Your task to perform on an android device: toggle location history Image 0: 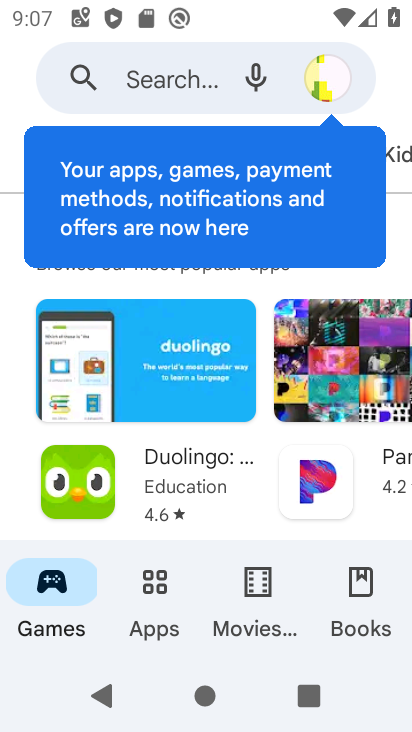
Step 0: press home button
Your task to perform on an android device: toggle location history Image 1: 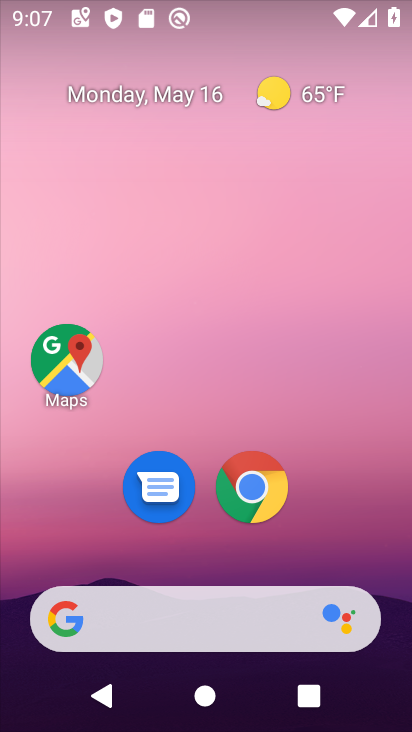
Step 1: drag from (372, 540) to (378, 115)
Your task to perform on an android device: toggle location history Image 2: 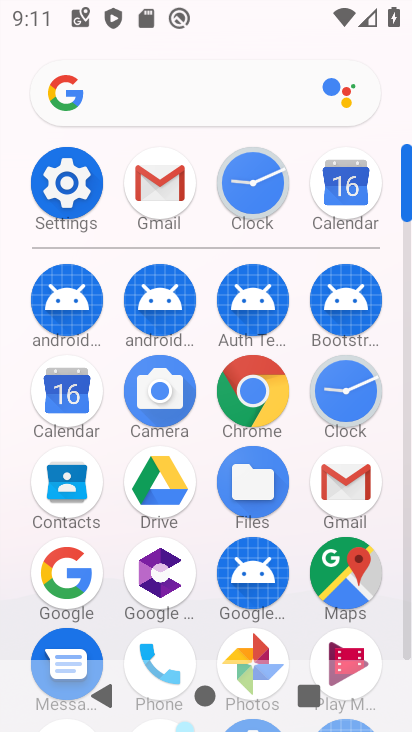
Step 2: click (83, 209)
Your task to perform on an android device: toggle location history Image 3: 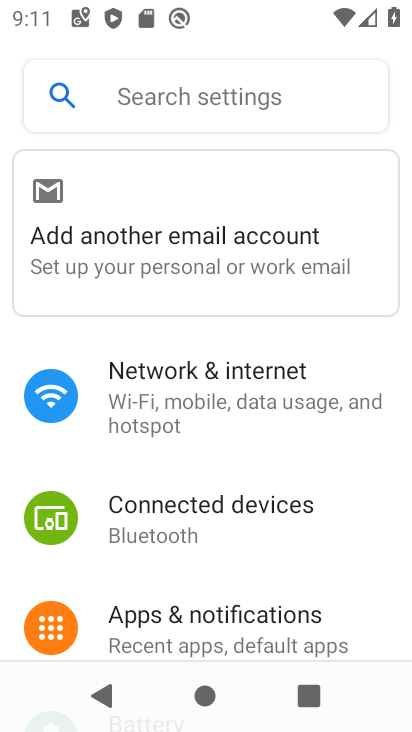
Step 3: drag from (337, 569) to (369, 362)
Your task to perform on an android device: toggle location history Image 4: 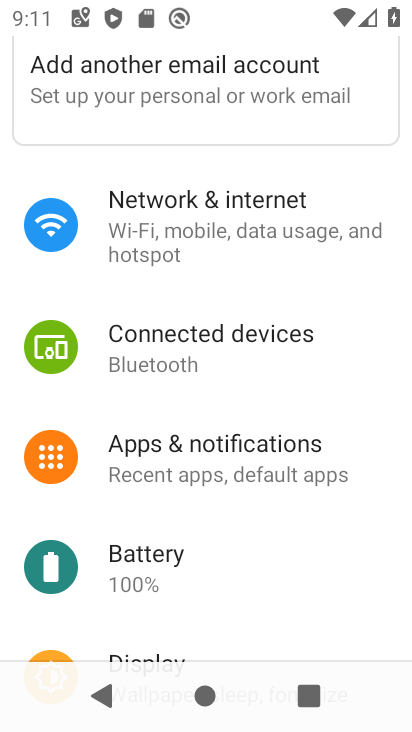
Step 4: drag from (345, 559) to (349, 346)
Your task to perform on an android device: toggle location history Image 5: 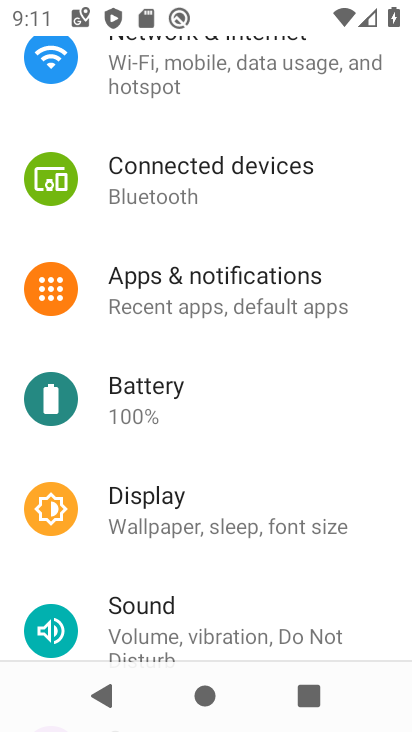
Step 5: drag from (351, 572) to (360, 380)
Your task to perform on an android device: toggle location history Image 6: 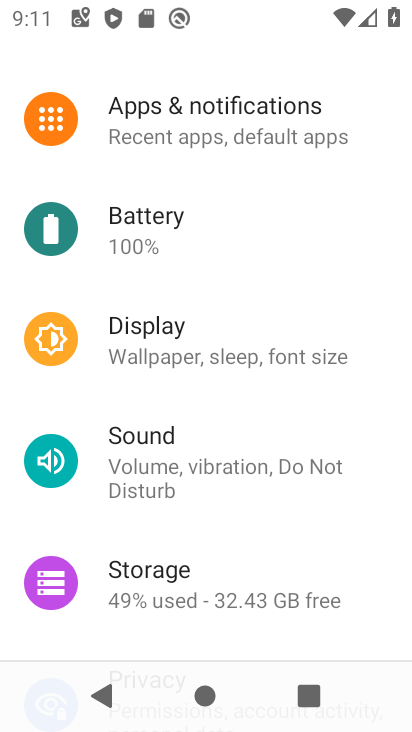
Step 6: drag from (376, 556) to (365, 344)
Your task to perform on an android device: toggle location history Image 7: 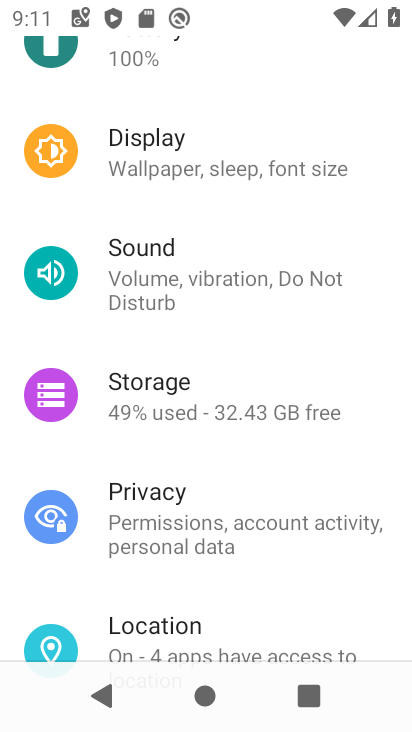
Step 7: drag from (358, 595) to (357, 381)
Your task to perform on an android device: toggle location history Image 8: 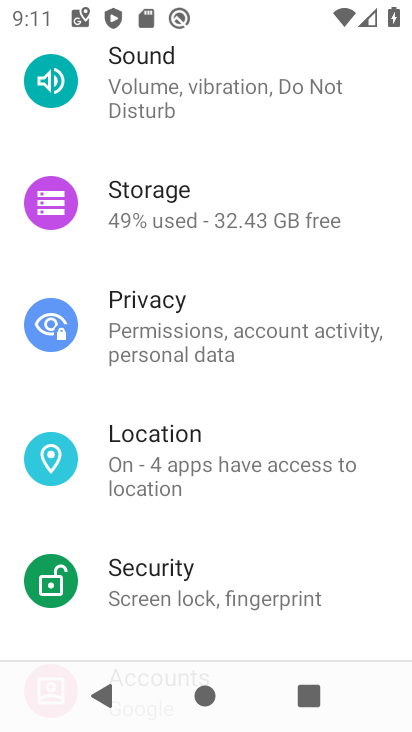
Step 8: click (286, 479)
Your task to perform on an android device: toggle location history Image 9: 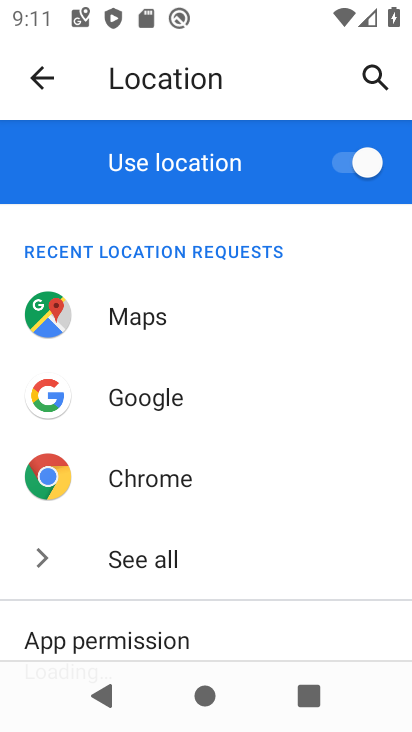
Step 9: drag from (289, 568) to (288, 410)
Your task to perform on an android device: toggle location history Image 10: 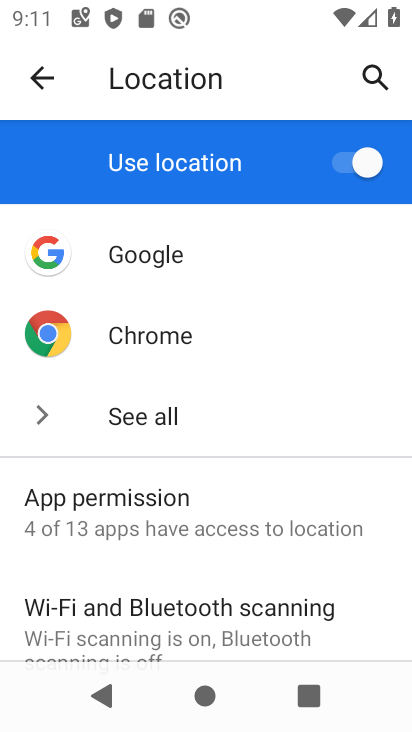
Step 10: drag from (300, 579) to (307, 387)
Your task to perform on an android device: toggle location history Image 11: 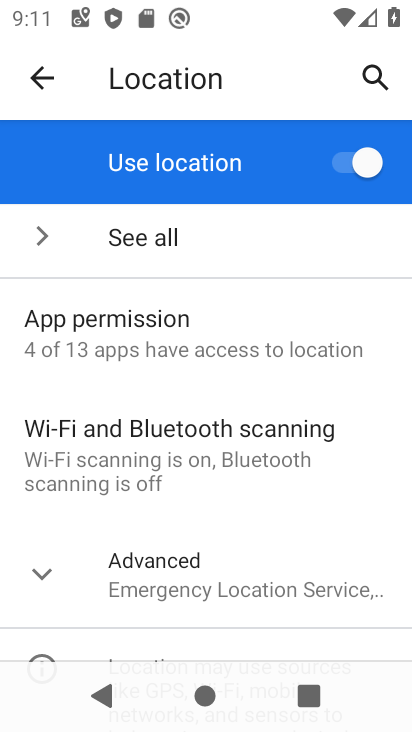
Step 11: drag from (313, 539) to (303, 351)
Your task to perform on an android device: toggle location history Image 12: 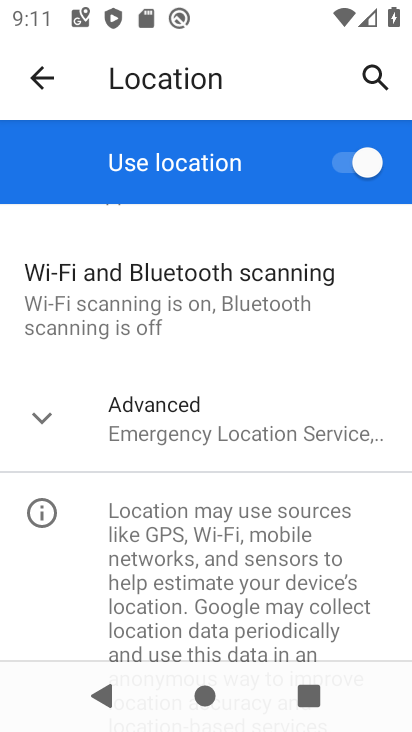
Step 12: drag from (313, 566) to (313, 370)
Your task to perform on an android device: toggle location history Image 13: 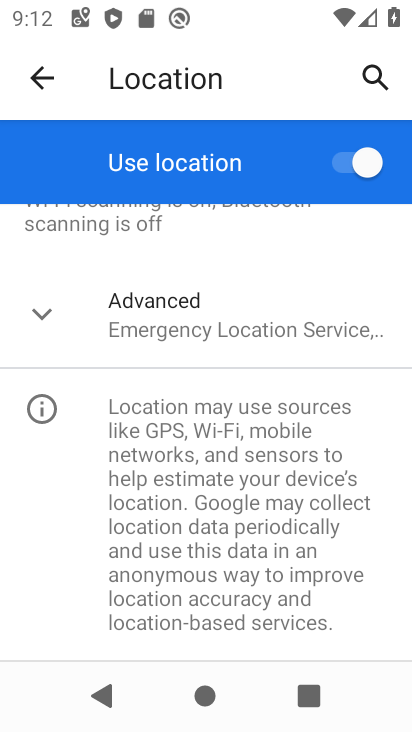
Step 13: drag from (330, 550) to (327, 409)
Your task to perform on an android device: toggle location history Image 14: 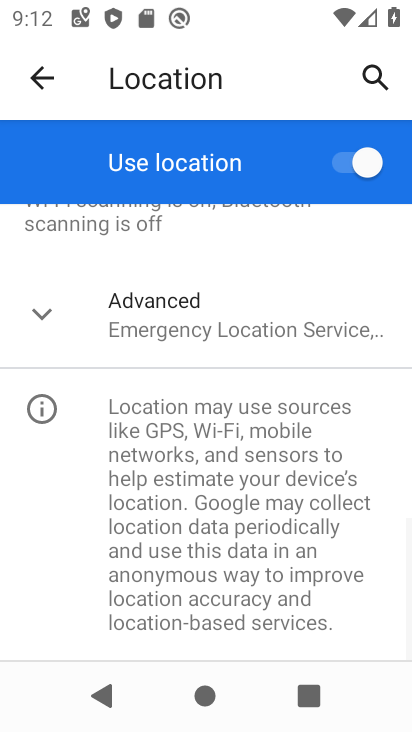
Step 14: click (274, 320)
Your task to perform on an android device: toggle location history Image 15: 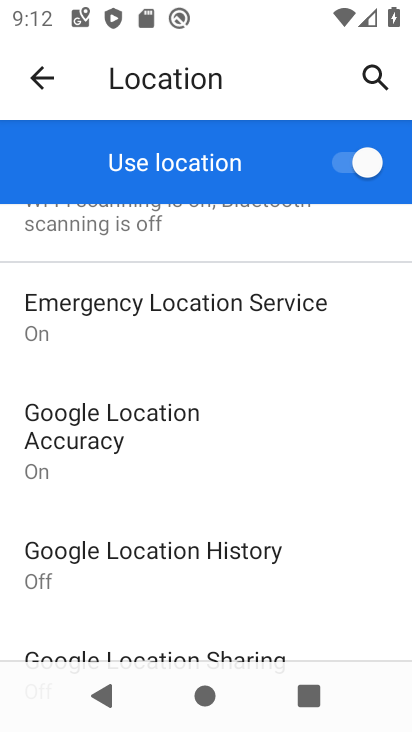
Step 15: drag from (290, 591) to (303, 419)
Your task to perform on an android device: toggle location history Image 16: 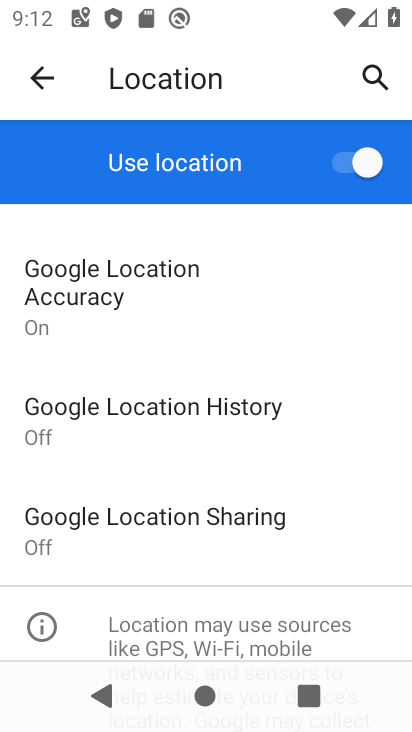
Step 16: click (167, 419)
Your task to perform on an android device: toggle location history Image 17: 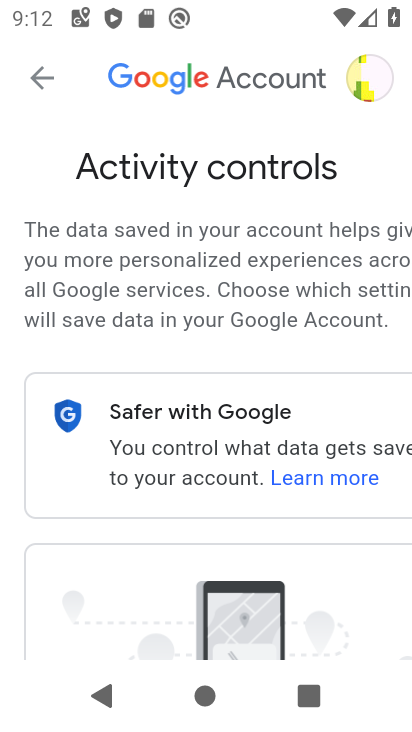
Step 17: drag from (311, 613) to (309, 458)
Your task to perform on an android device: toggle location history Image 18: 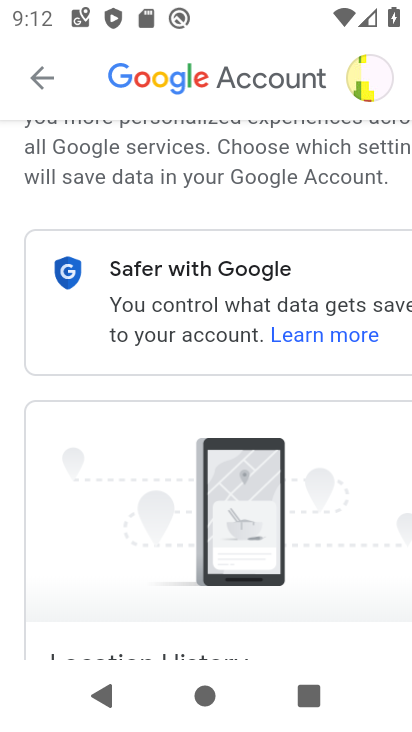
Step 18: drag from (281, 604) to (295, 451)
Your task to perform on an android device: toggle location history Image 19: 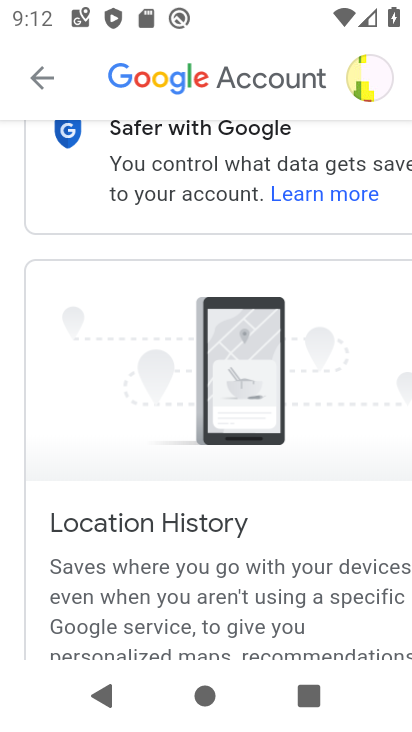
Step 19: drag from (280, 587) to (273, 417)
Your task to perform on an android device: toggle location history Image 20: 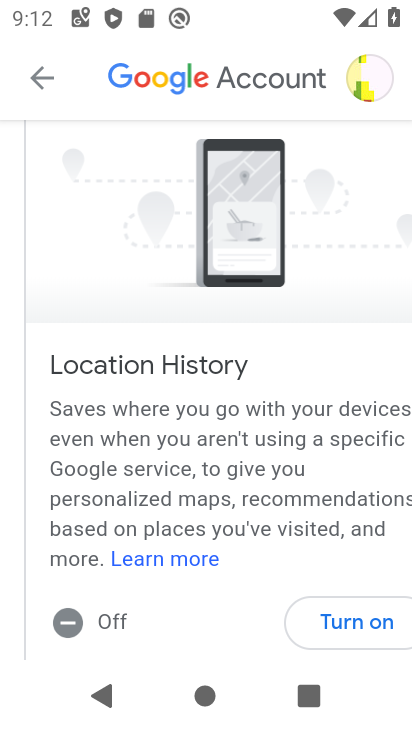
Step 20: drag from (248, 581) to (244, 459)
Your task to perform on an android device: toggle location history Image 21: 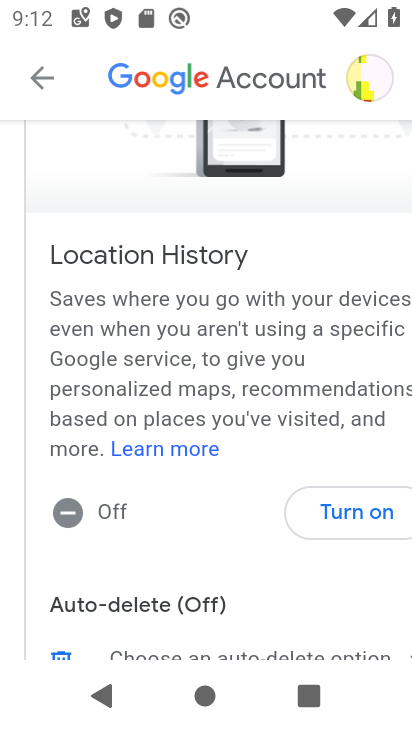
Step 21: click (349, 516)
Your task to perform on an android device: toggle location history Image 22: 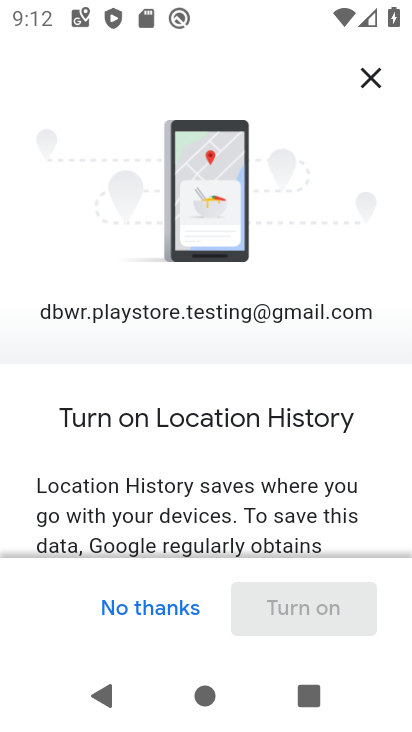
Step 22: drag from (238, 509) to (257, 307)
Your task to perform on an android device: toggle location history Image 23: 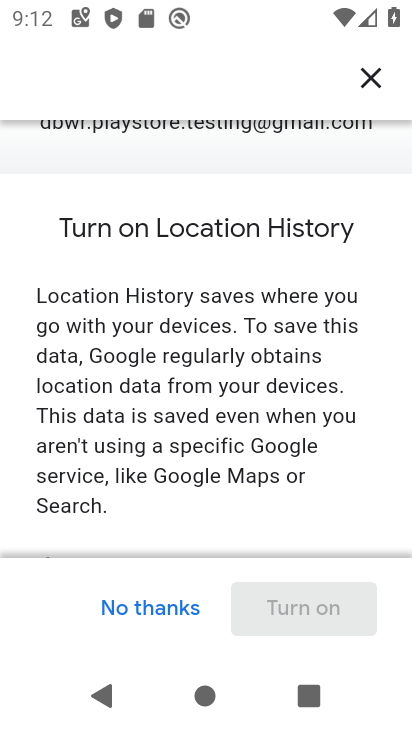
Step 23: drag from (232, 474) to (249, 248)
Your task to perform on an android device: toggle location history Image 24: 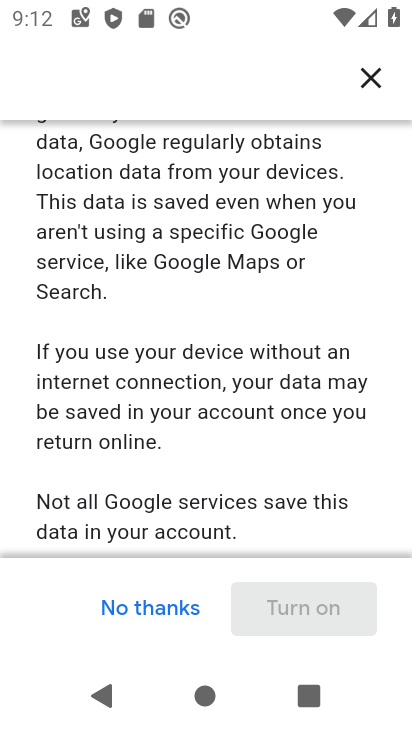
Step 24: drag from (234, 462) to (232, 298)
Your task to perform on an android device: toggle location history Image 25: 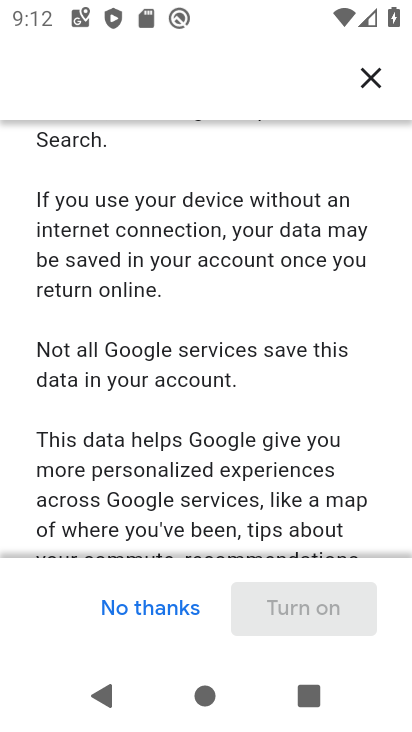
Step 25: drag from (223, 512) to (222, 362)
Your task to perform on an android device: toggle location history Image 26: 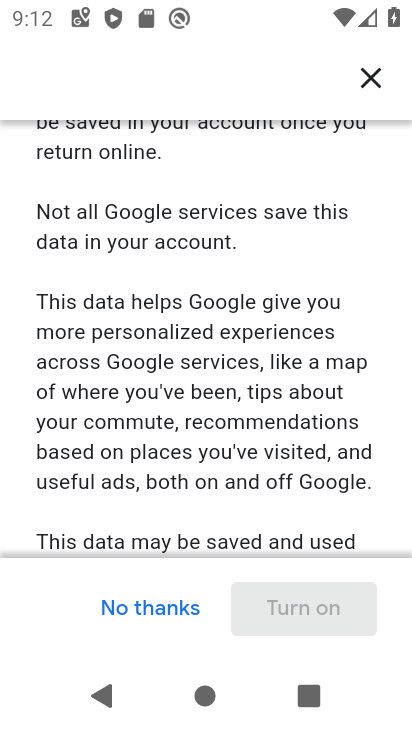
Step 26: drag from (221, 507) to (241, 373)
Your task to perform on an android device: toggle location history Image 27: 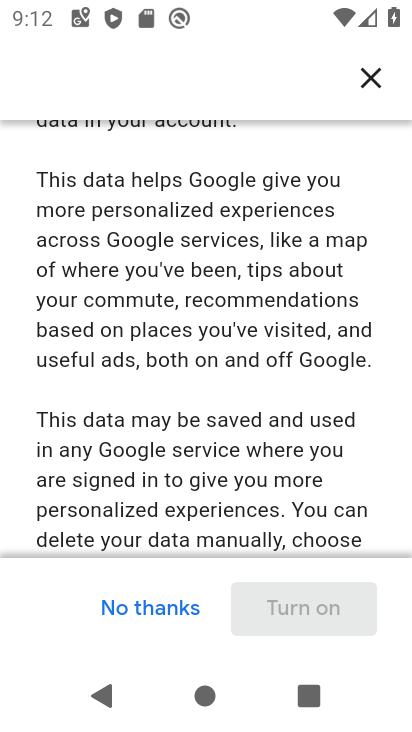
Step 27: drag from (229, 496) to (228, 414)
Your task to perform on an android device: toggle location history Image 28: 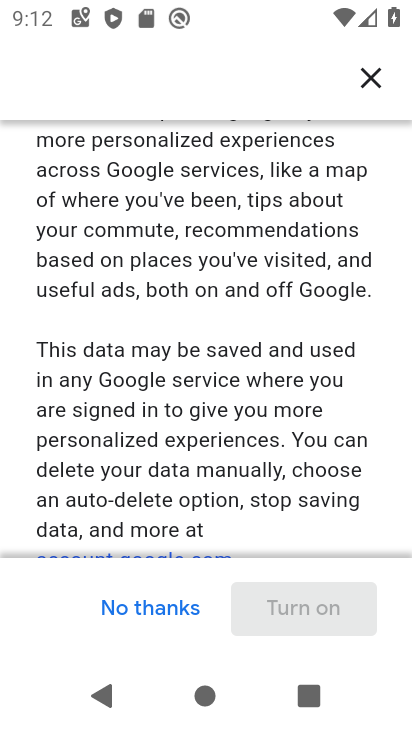
Step 28: drag from (254, 516) to (272, 405)
Your task to perform on an android device: toggle location history Image 29: 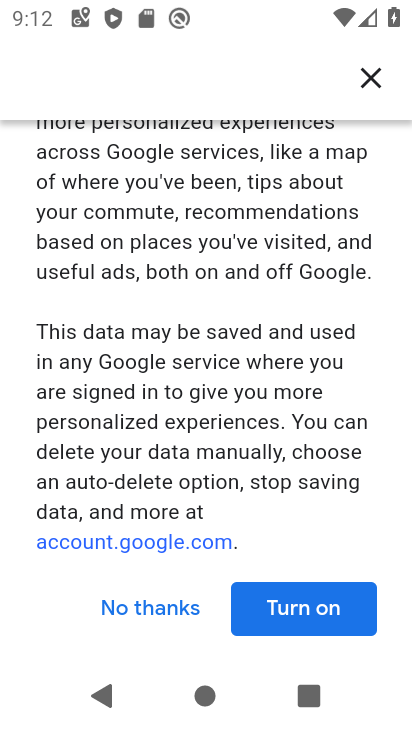
Step 29: click (320, 603)
Your task to perform on an android device: toggle location history Image 30: 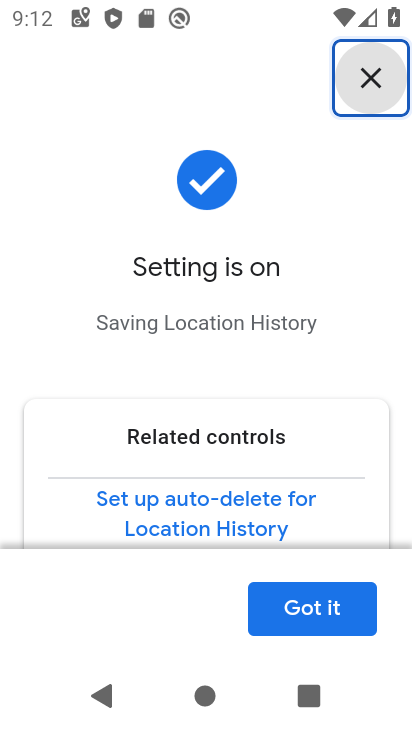
Step 30: task complete